Your task to perform on an android device: turn on javascript in the chrome app Image 0: 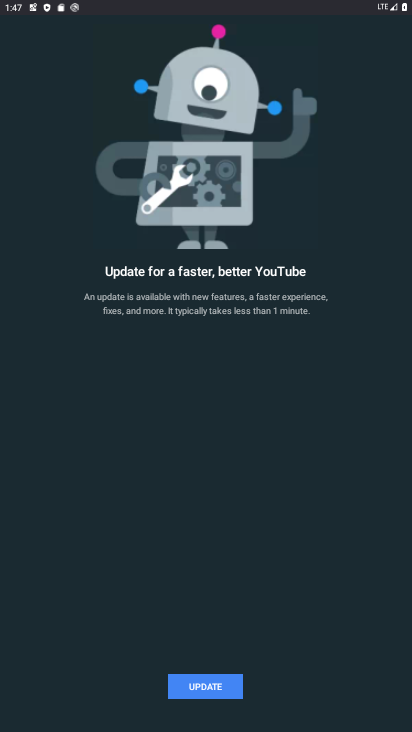
Step 0: press home button
Your task to perform on an android device: turn on javascript in the chrome app Image 1: 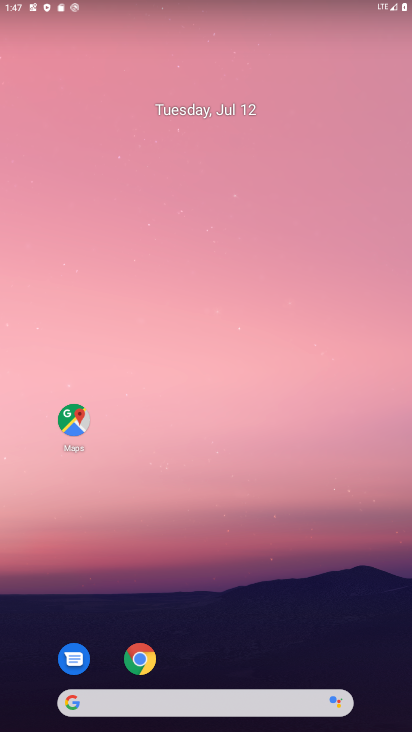
Step 1: click (138, 657)
Your task to perform on an android device: turn on javascript in the chrome app Image 2: 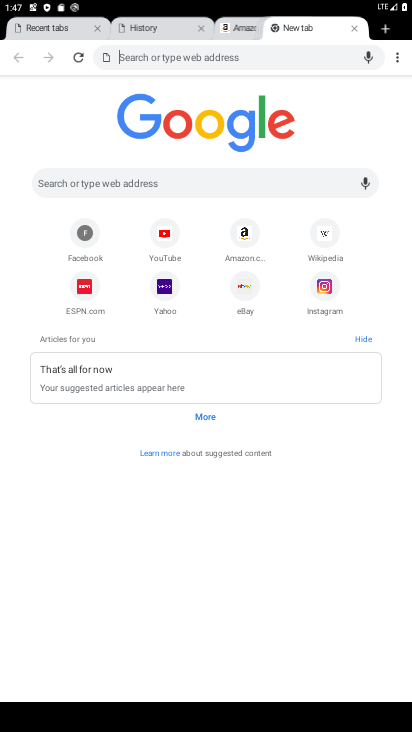
Step 2: click (396, 60)
Your task to perform on an android device: turn on javascript in the chrome app Image 3: 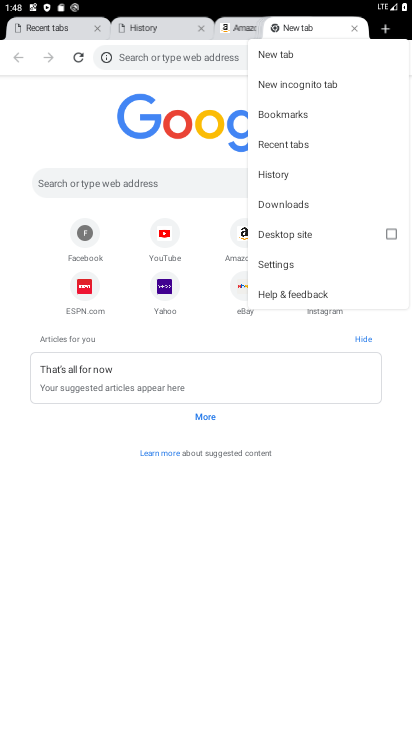
Step 3: click (278, 262)
Your task to perform on an android device: turn on javascript in the chrome app Image 4: 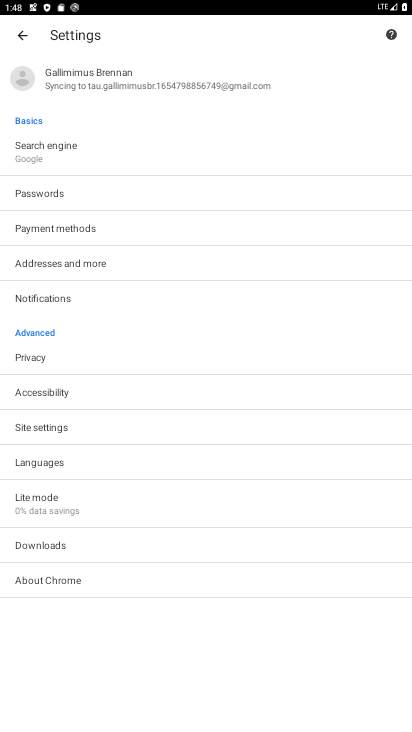
Step 4: click (52, 420)
Your task to perform on an android device: turn on javascript in the chrome app Image 5: 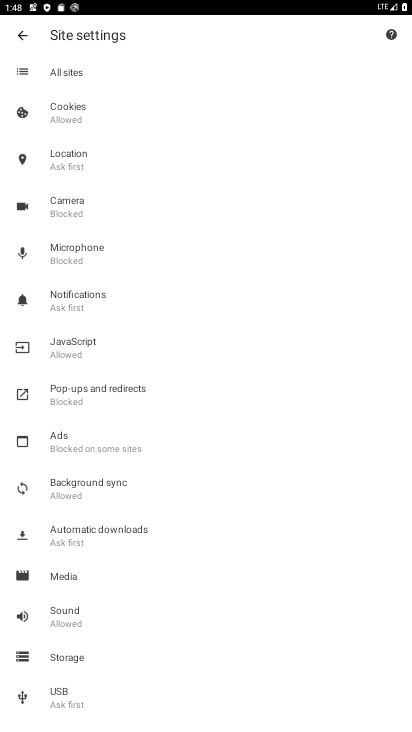
Step 5: click (65, 337)
Your task to perform on an android device: turn on javascript in the chrome app Image 6: 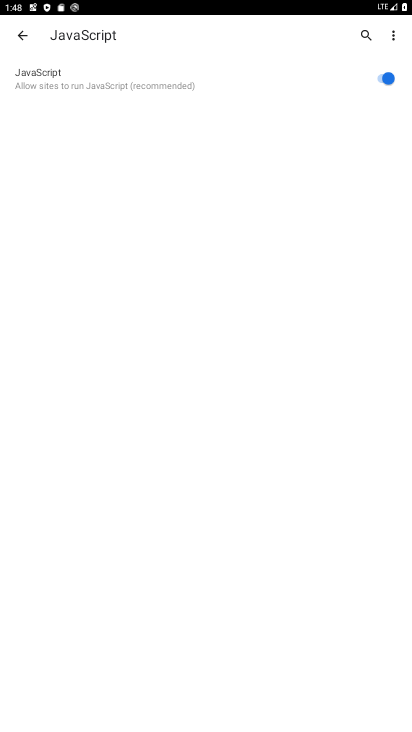
Step 6: task complete